Your task to perform on an android device: Go to privacy settings Image 0: 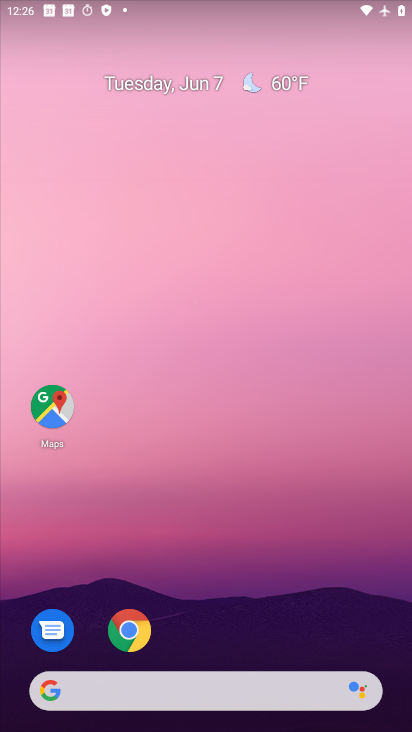
Step 0: drag from (322, 612) to (159, 17)
Your task to perform on an android device: Go to privacy settings Image 1: 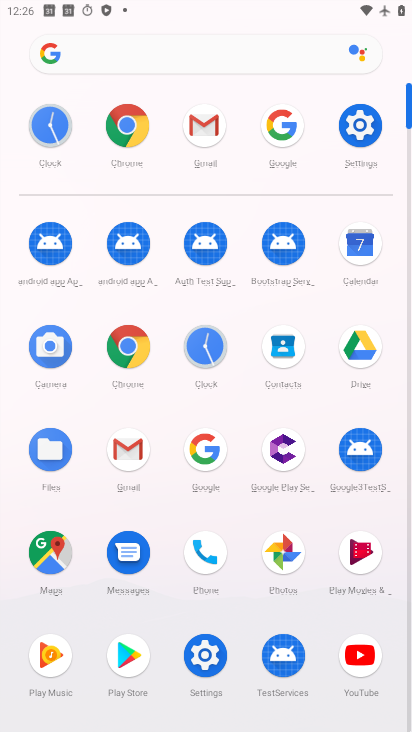
Step 1: click (209, 665)
Your task to perform on an android device: Go to privacy settings Image 2: 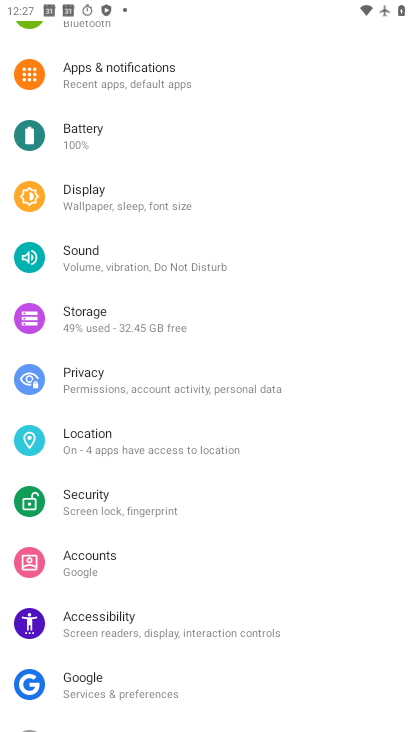
Step 2: click (143, 392)
Your task to perform on an android device: Go to privacy settings Image 3: 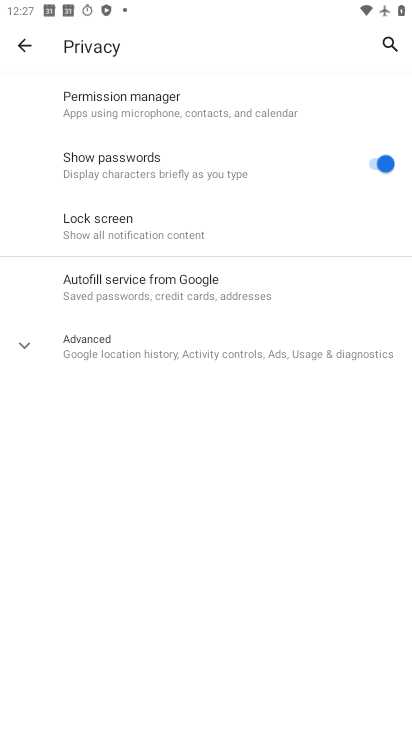
Step 3: task complete